Your task to perform on an android device: Open the calendar app, open the side menu, and click the "Day" option Image 0: 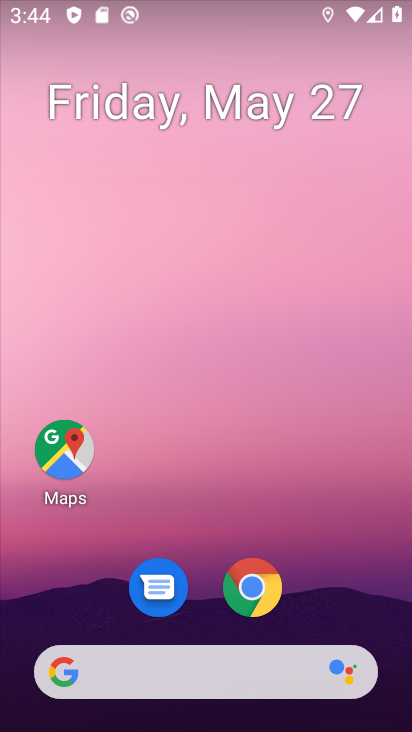
Step 0: drag from (341, 542) to (263, 43)
Your task to perform on an android device: Open the calendar app, open the side menu, and click the "Day" option Image 1: 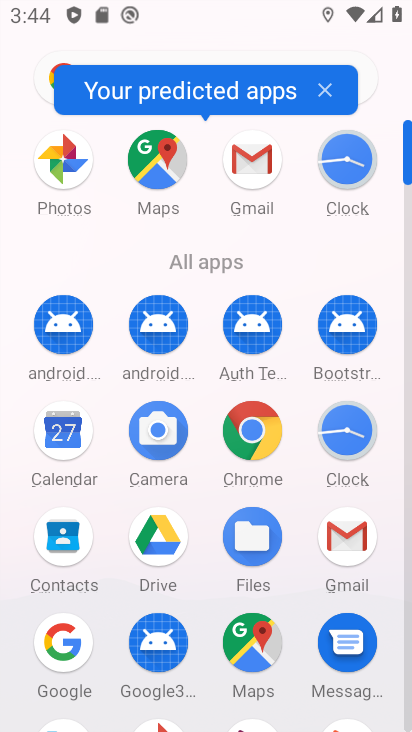
Step 1: drag from (21, 455) to (21, 267)
Your task to perform on an android device: Open the calendar app, open the side menu, and click the "Day" option Image 2: 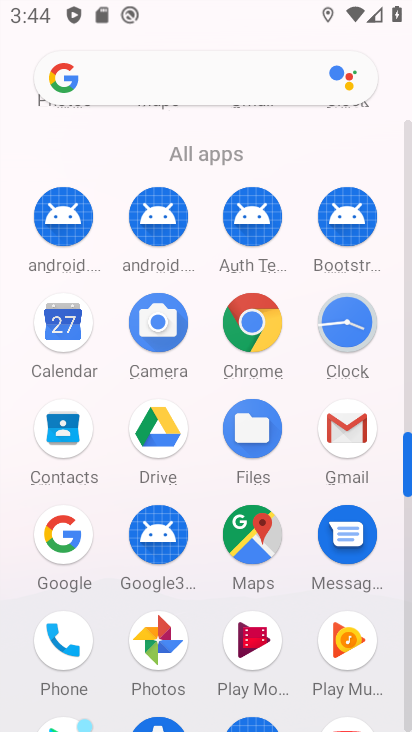
Step 2: click (67, 321)
Your task to perform on an android device: Open the calendar app, open the side menu, and click the "Day" option Image 3: 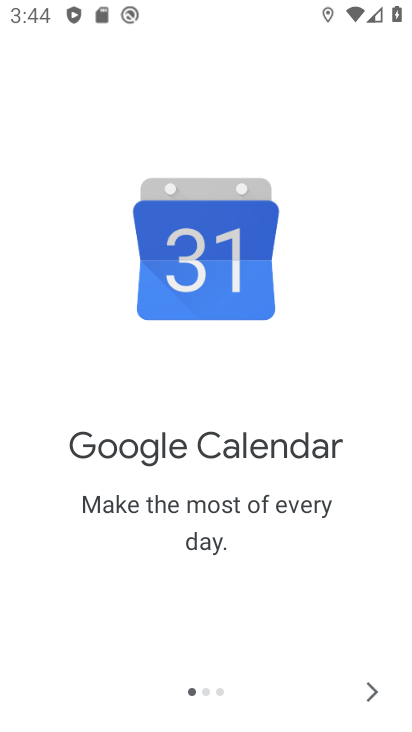
Step 3: click (374, 681)
Your task to perform on an android device: Open the calendar app, open the side menu, and click the "Day" option Image 4: 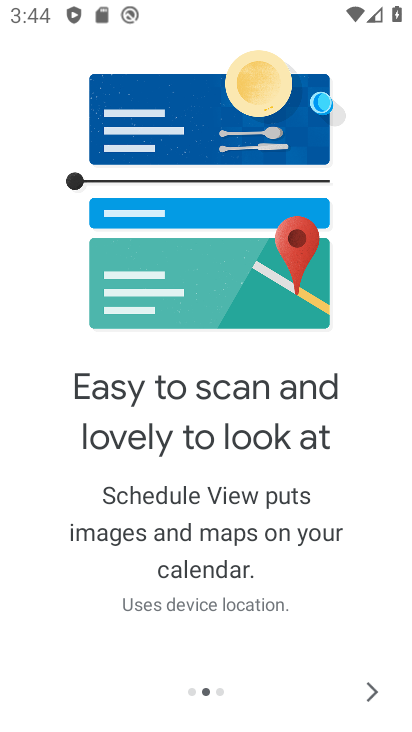
Step 4: click (360, 703)
Your task to perform on an android device: Open the calendar app, open the side menu, and click the "Day" option Image 5: 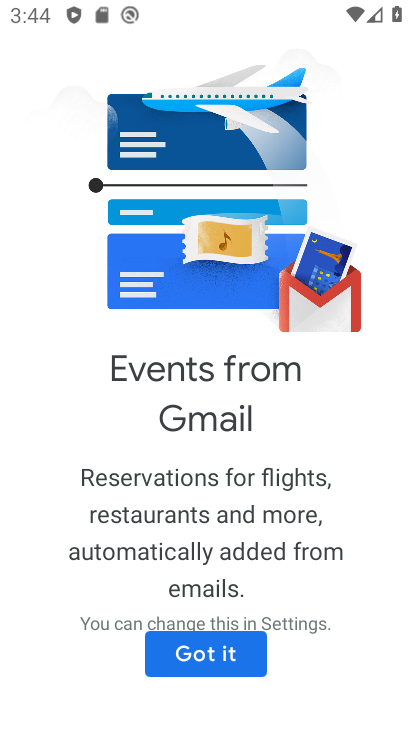
Step 5: click (195, 648)
Your task to perform on an android device: Open the calendar app, open the side menu, and click the "Day" option Image 6: 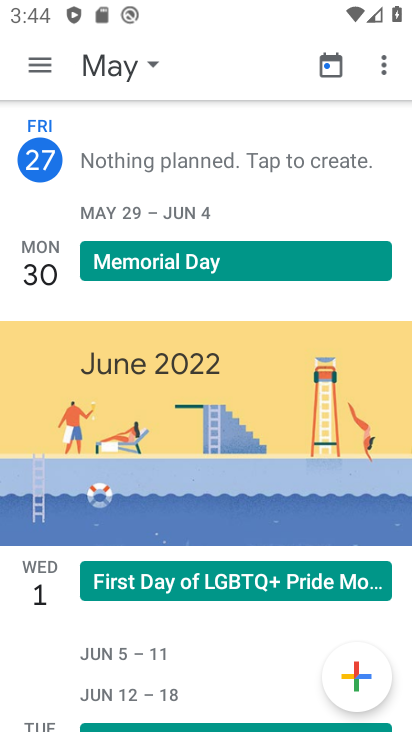
Step 6: click (47, 66)
Your task to perform on an android device: Open the calendar app, open the side menu, and click the "Day" option Image 7: 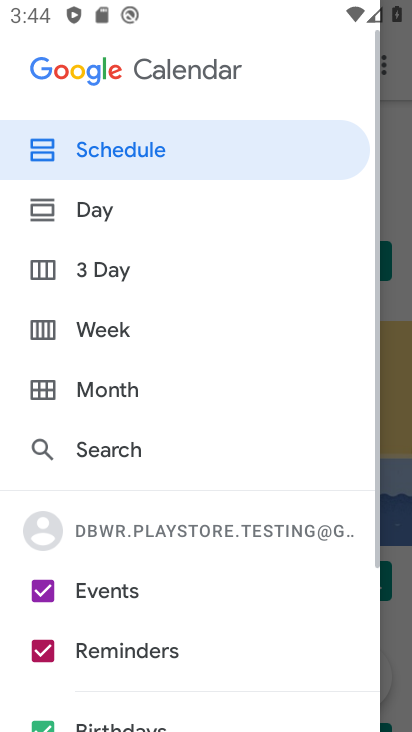
Step 7: click (79, 207)
Your task to perform on an android device: Open the calendar app, open the side menu, and click the "Day" option Image 8: 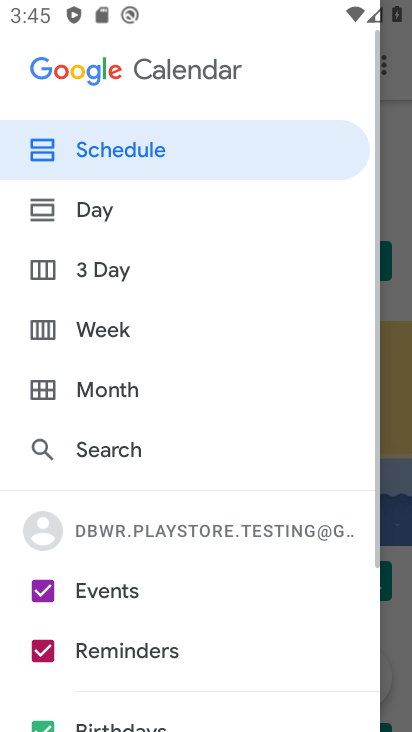
Step 8: click (79, 207)
Your task to perform on an android device: Open the calendar app, open the side menu, and click the "Day" option Image 9: 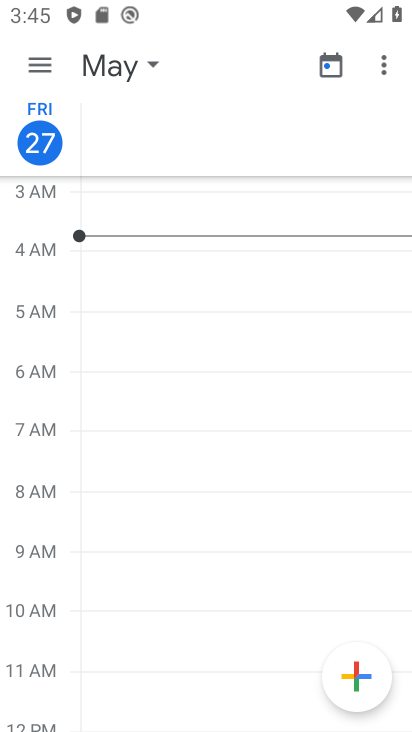
Step 9: task complete